Your task to perform on an android device: change the upload size in google photos Image 0: 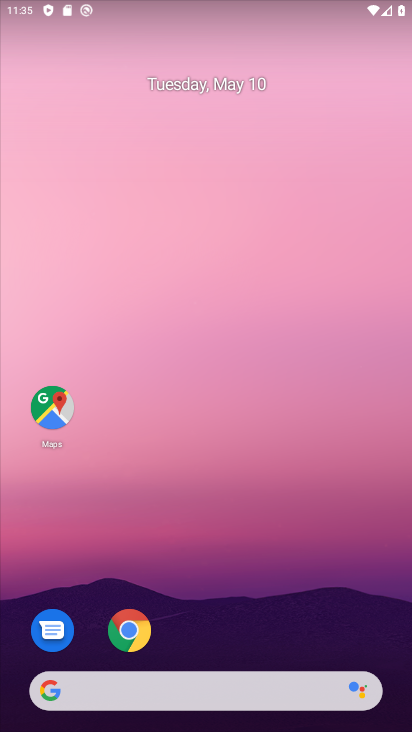
Step 0: drag from (299, 619) to (304, 184)
Your task to perform on an android device: change the upload size in google photos Image 1: 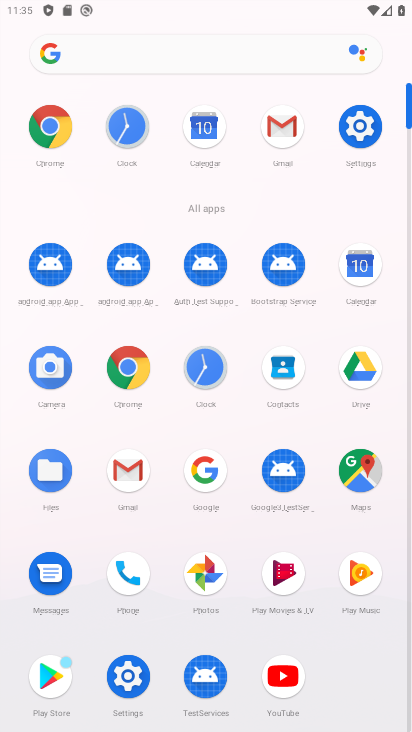
Step 1: click (200, 567)
Your task to perform on an android device: change the upload size in google photos Image 2: 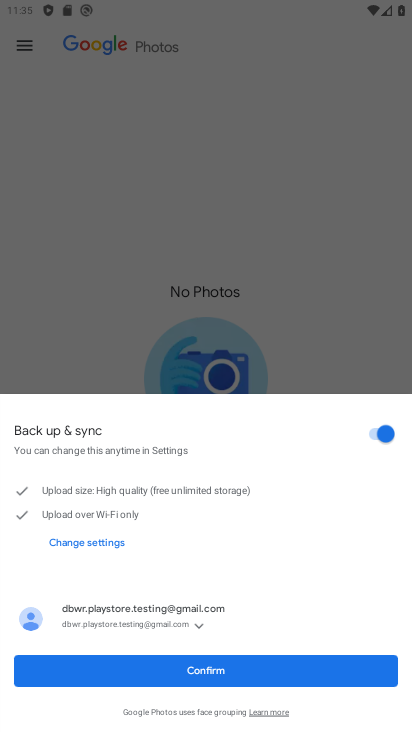
Step 2: click (247, 670)
Your task to perform on an android device: change the upload size in google photos Image 3: 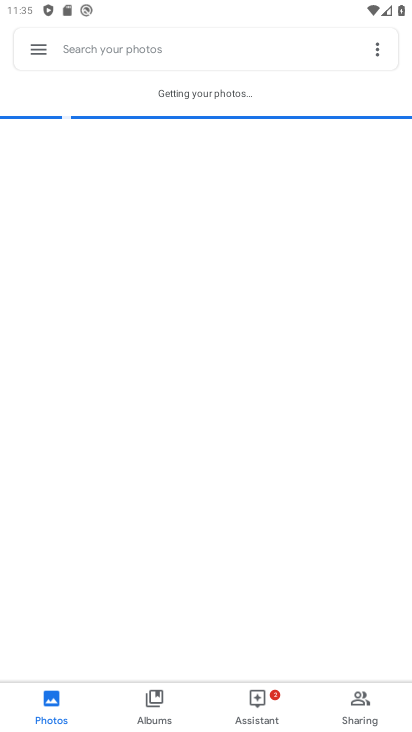
Step 3: click (34, 61)
Your task to perform on an android device: change the upload size in google photos Image 4: 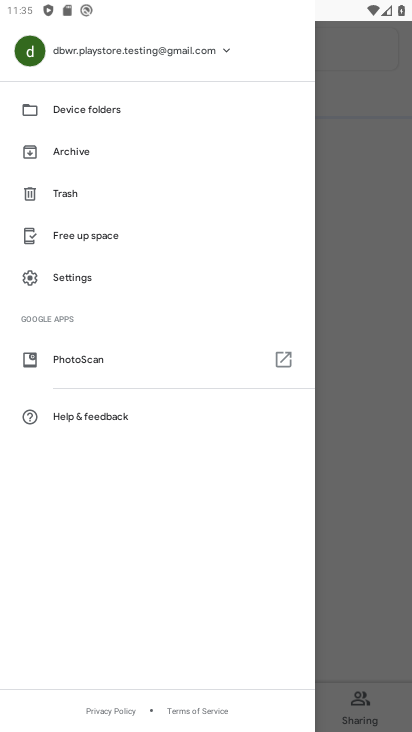
Step 4: click (64, 280)
Your task to perform on an android device: change the upload size in google photos Image 5: 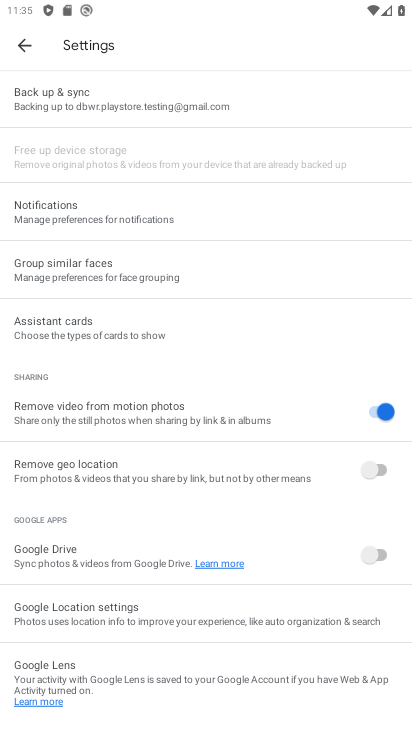
Step 5: click (124, 94)
Your task to perform on an android device: change the upload size in google photos Image 6: 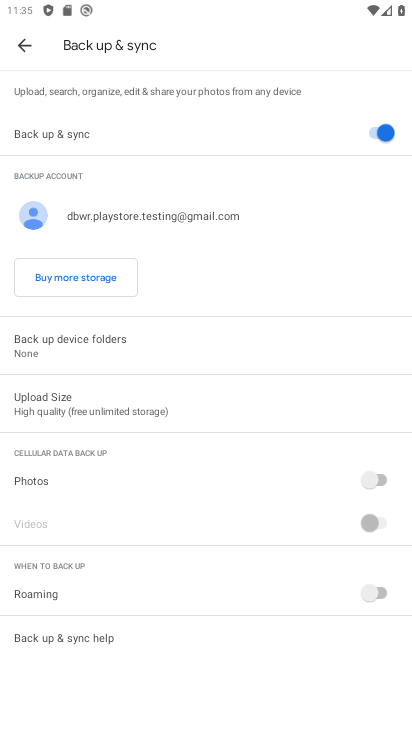
Step 6: click (143, 404)
Your task to perform on an android device: change the upload size in google photos Image 7: 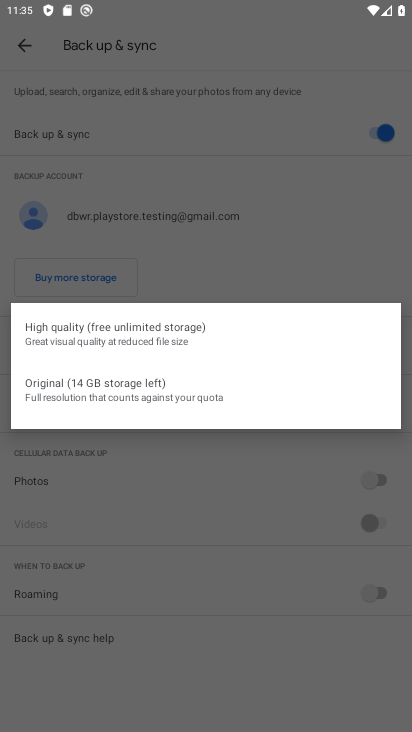
Step 7: click (154, 441)
Your task to perform on an android device: change the upload size in google photos Image 8: 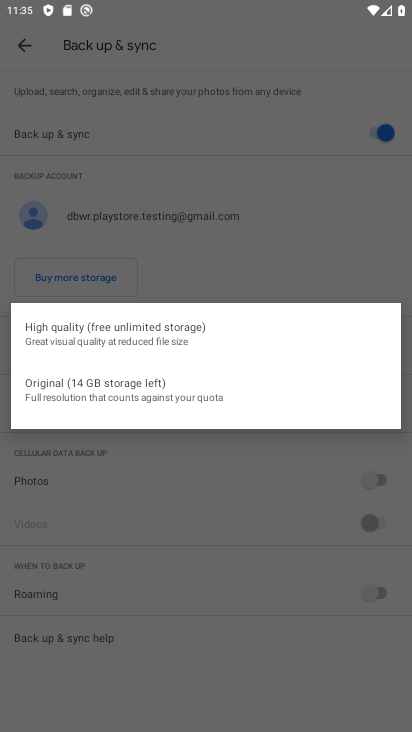
Step 8: click (157, 340)
Your task to perform on an android device: change the upload size in google photos Image 9: 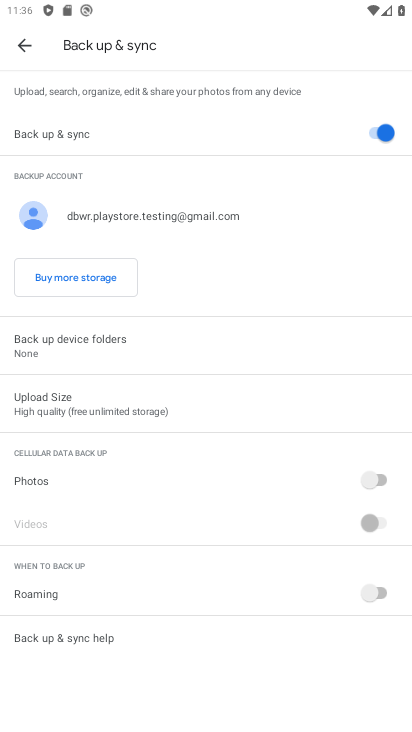
Step 9: task complete